Your task to perform on an android device: See recent photos Image 0: 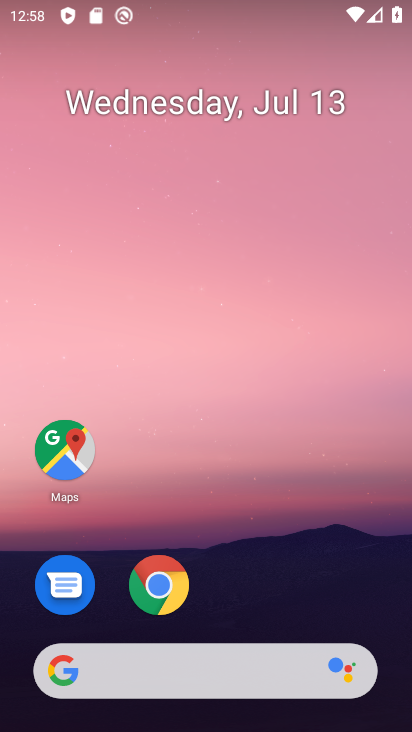
Step 0: drag from (230, 569) to (392, 44)
Your task to perform on an android device: See recent photos Image 1: 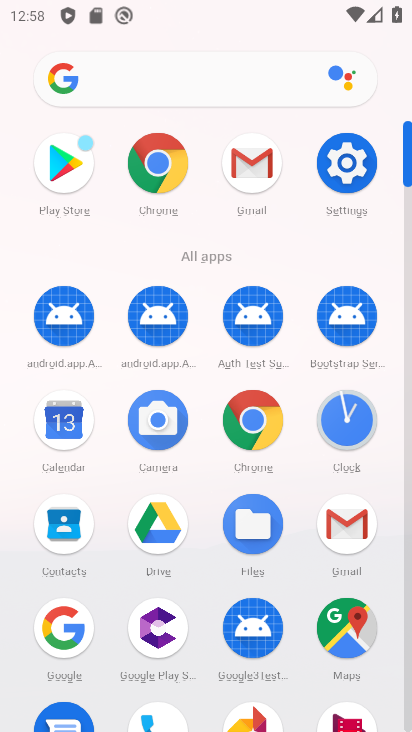
Step 1: drag from (198, 587) to (316, 171)
Your task to perform on an android device: See recent photos Image 2: 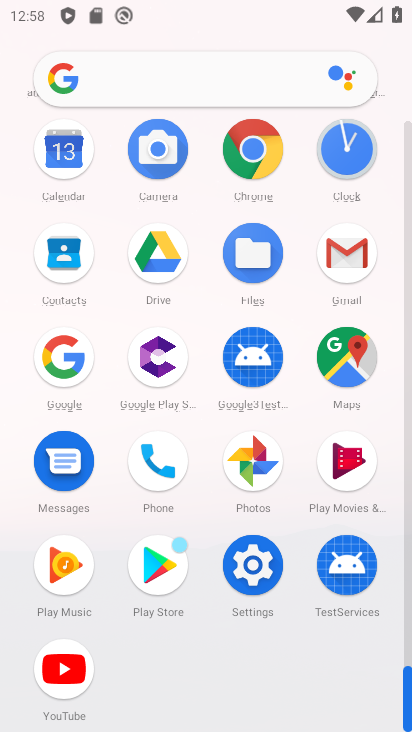
Step 2: click (241, 463)
Your task to perform on an android device: See recent photos Image 3: 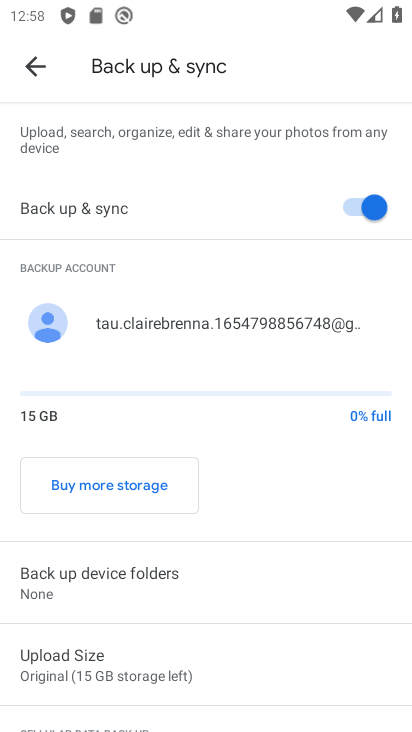
Step 3: click (39, 70)
Your task to perform on an android device: See recent photos Image 4: 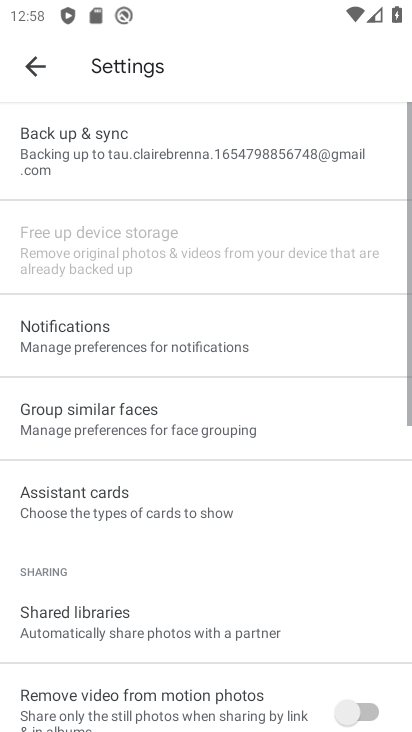
Step 4: click (39, 71)
Your task to perform on an android device: See recent photos Image 5: 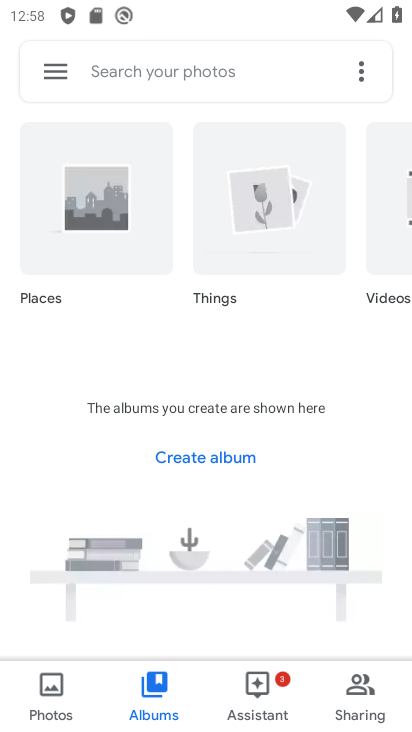
Step 5: click (358, 696)
Your task to perform on an android device: See recent photos Image 6: 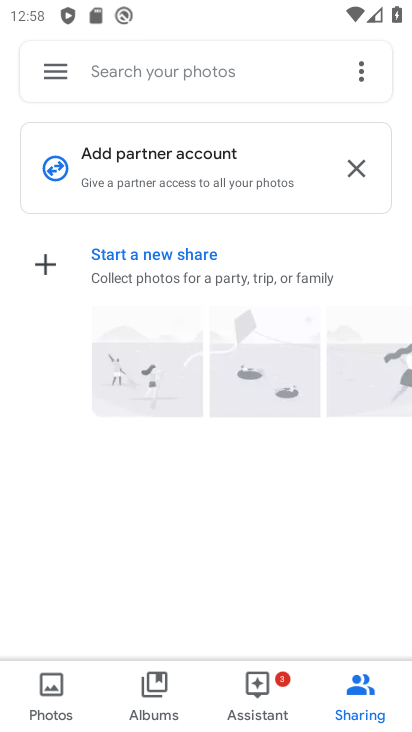
Step 6: click (274, 707)
Your task to perform on an android device: See recent photos Image 7: 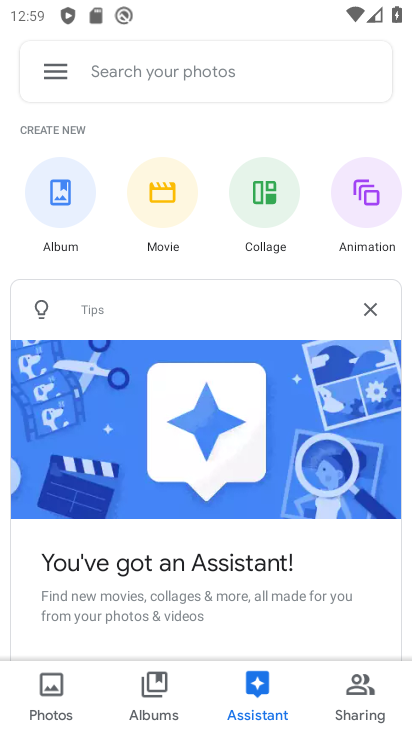
Step 7: task complete